Your task to perform on an android device: check battery use Image 0: 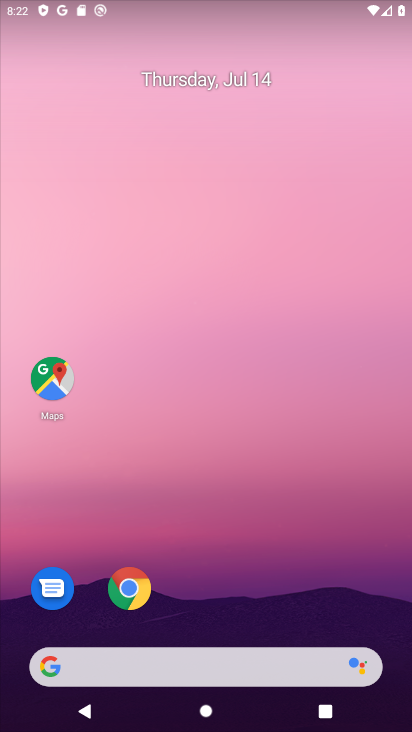
Step 0: drag from (251, 708) to (171, 255)
Your task to perform on an android device: check battery use Image 1: 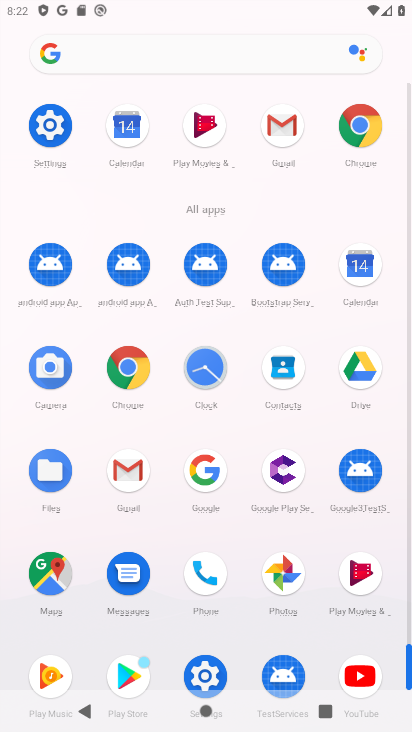
Step 1: click (48, 133)
Your task to perform on an android device: check battery use Image 2: 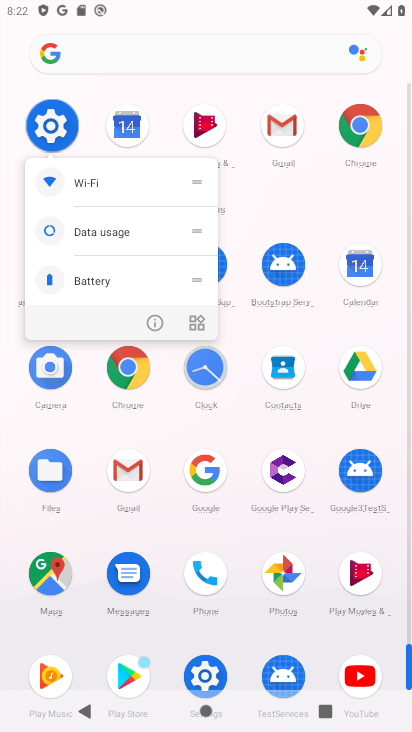
Step 2: click (52, 132)
Your task to perform on an android device: check battery use Image 3: 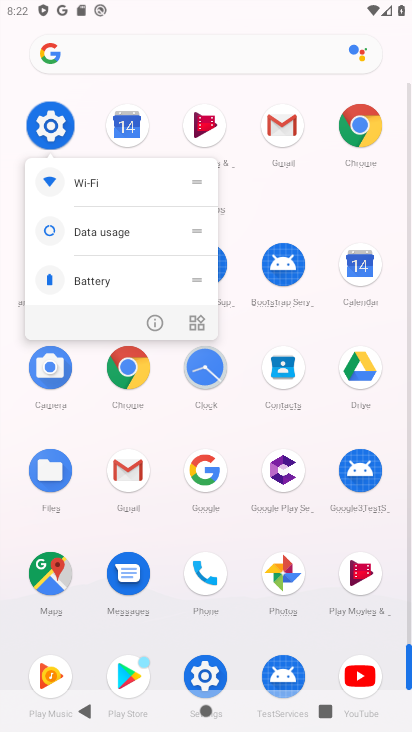
Step 3: click (56, 129)
Your task to perform on an android device: check battery use Image 4: 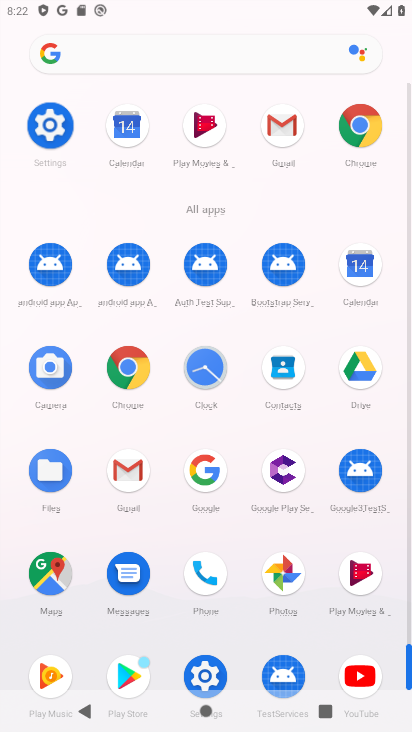
Step 4: click (57, 128)
Your task to perform on an android device: check battery use Image 5: 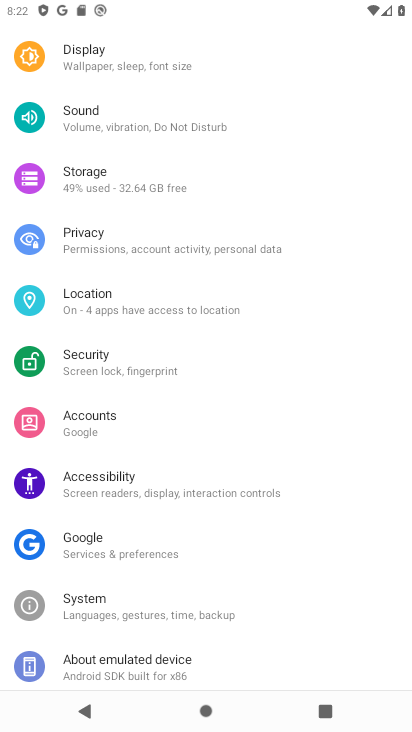
Step 5: click (59, 130)
Your task to perform on an android device: check battery use Image 6: 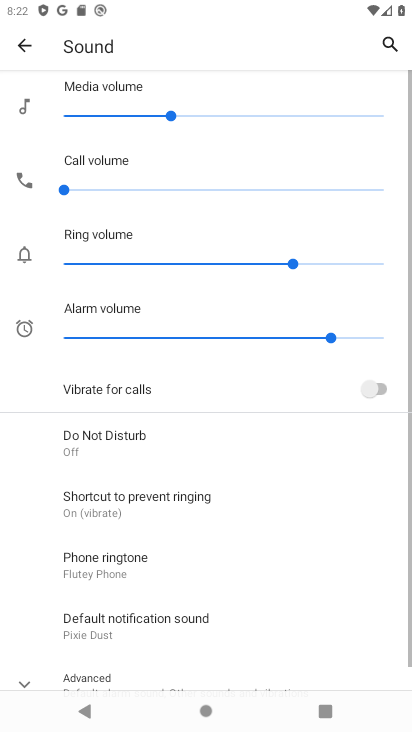
Step 6: click (16, 46)
Your task to perform on an android device: check battery use Image 7: 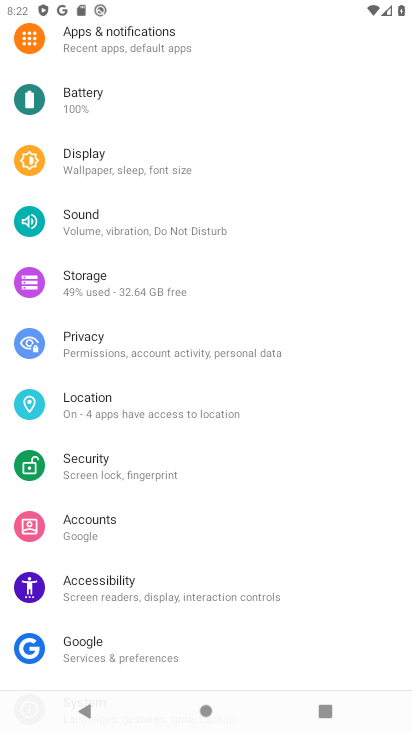
Step 7: click (81, 99)
Your task to perform on an android device: check battery use Image 8: 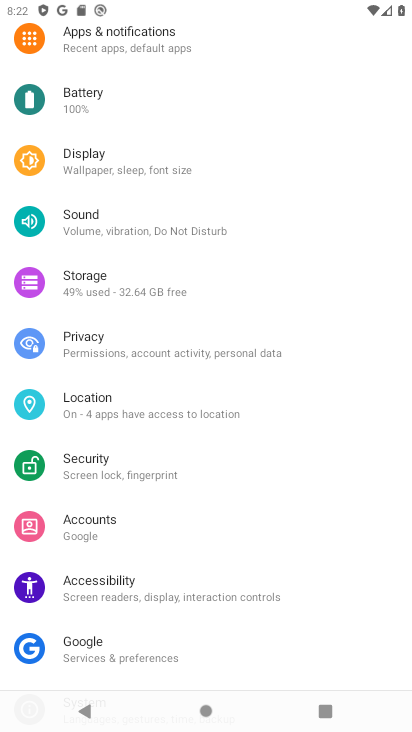
Step 8: click (80, 98)
Your task to perform on an android device: check battery use Image 9: 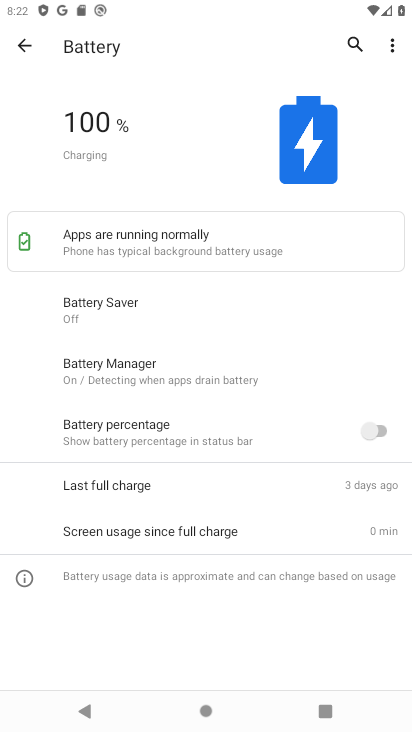
Step 9: task complete